Your task to perform on an android device: Go to network settings Image 0: 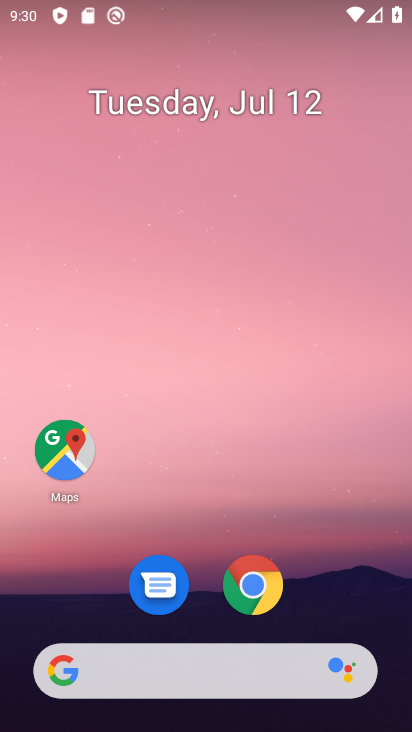
Step 0: drag from (221, 584) to (272, 105)
Your task to perform on an android device: Go to network settings Image 1: 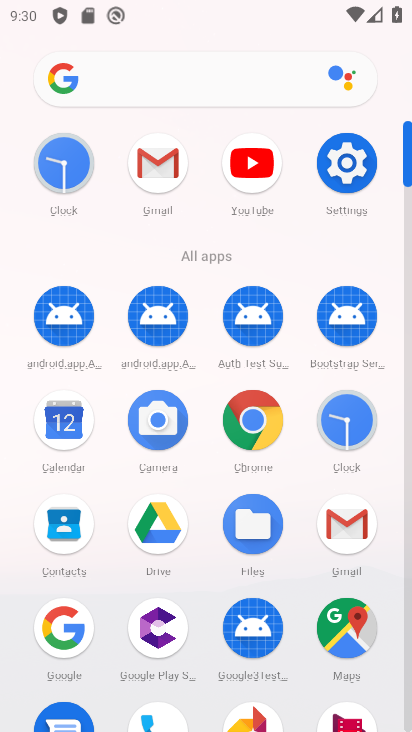
Step 1: click (337, 175)
Your task to perform on an android device: Go to network settings Image 2: 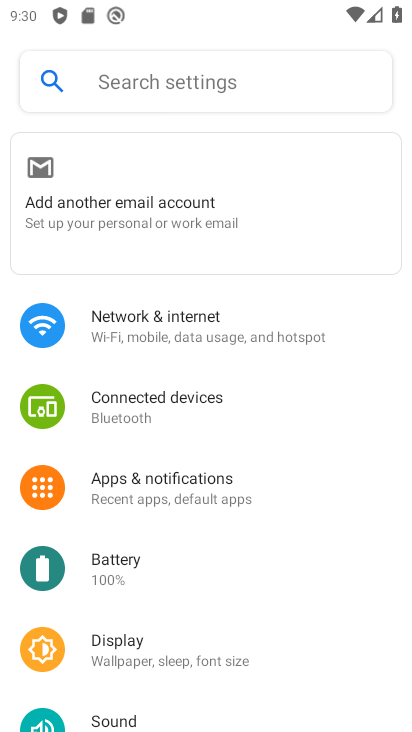
Step 2: click (200, 332)
Your task to perform on an android device: Go to network settings Image 3: 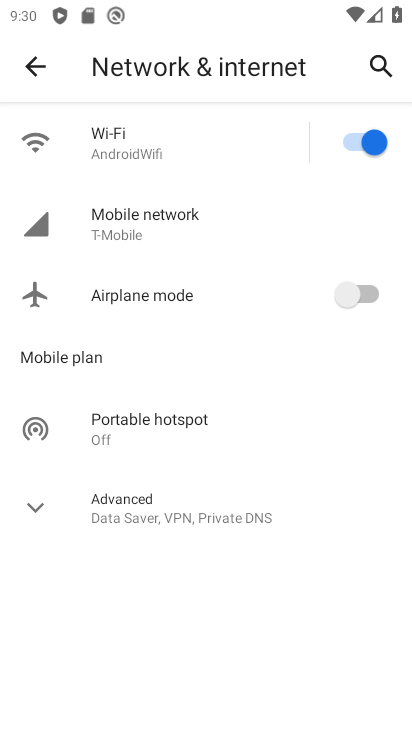
Step 3: click (169, 229)
Your task to perform on an android device: Go to network settings Image 4: 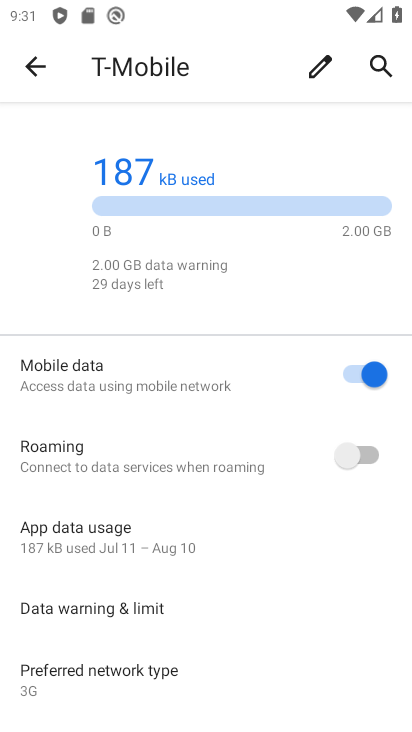
Step 4: task complete